Your task to perform on an android device: turn off sleep mode Image 0: 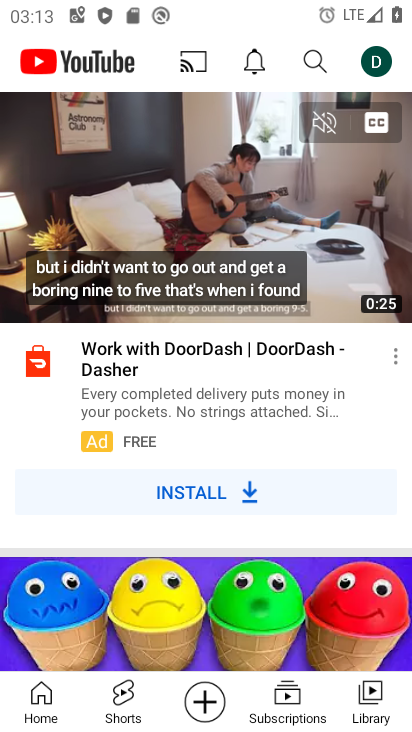
Step 0: press home button
Your task to perform on an android device: turn off sleep mode Image 1: 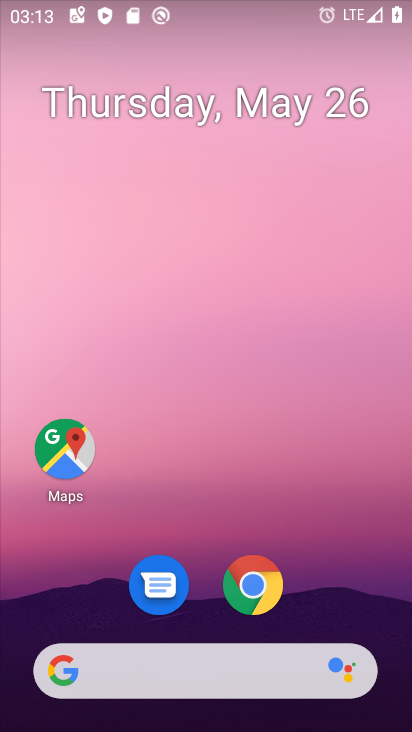
Step 1: drag from (234, 496) to (273, 46)
Your task to perform on an android device: turn off sleep mode Image 2: 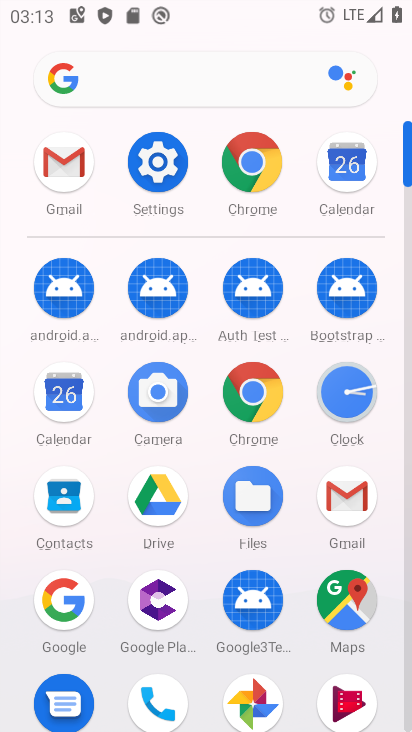
Step 2: click (167, 163)
Your task to perform on an android device: turn off sleep mode Image 3: 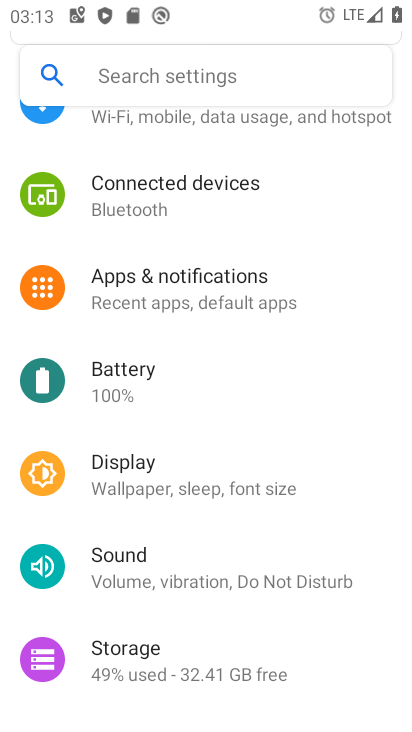
Step 3: click (209, 478)
Your task to perform on an android device: turn off sleep mode Image 4: 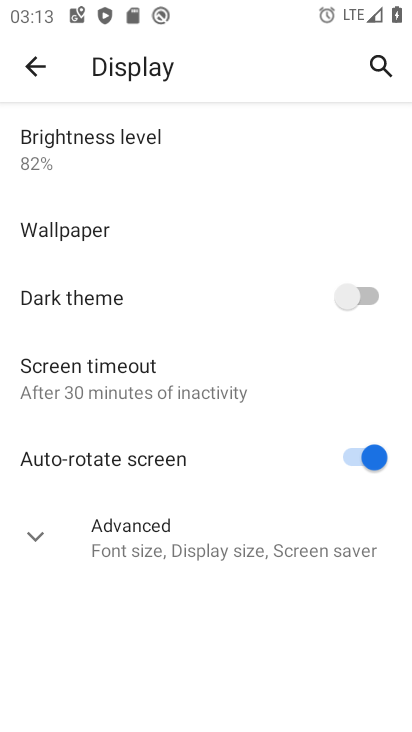
Step 4: click (37, 533)
Your task to perform on an android device: turn off sleep mode Image 5: 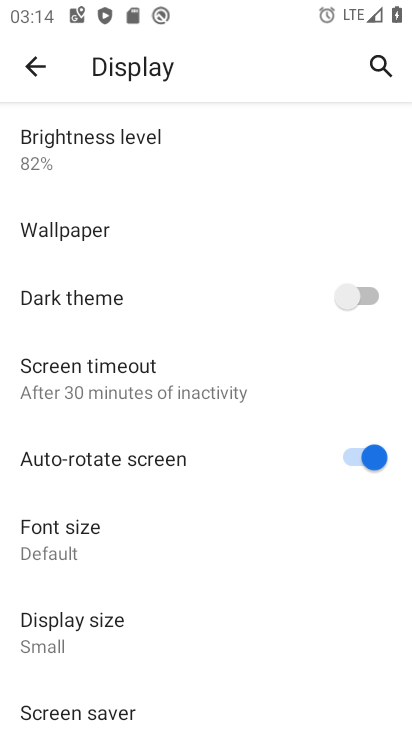
Step 5: task complete